Your task to perform on an android device: turn on sleep mode Image 0: 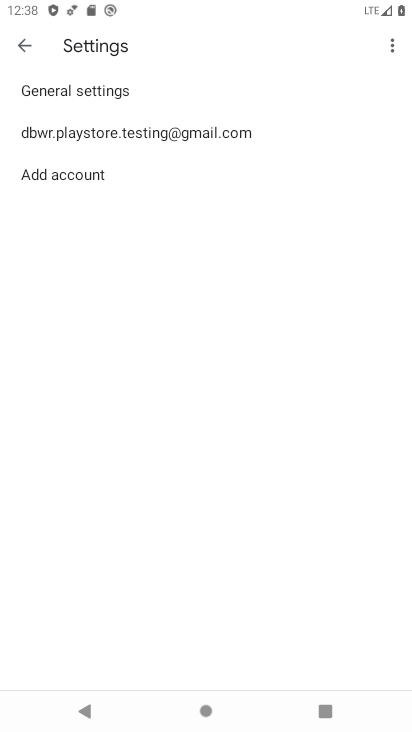
Step 0: press home button
Your task to perform on an android device: turn on sleep mode Image 1: 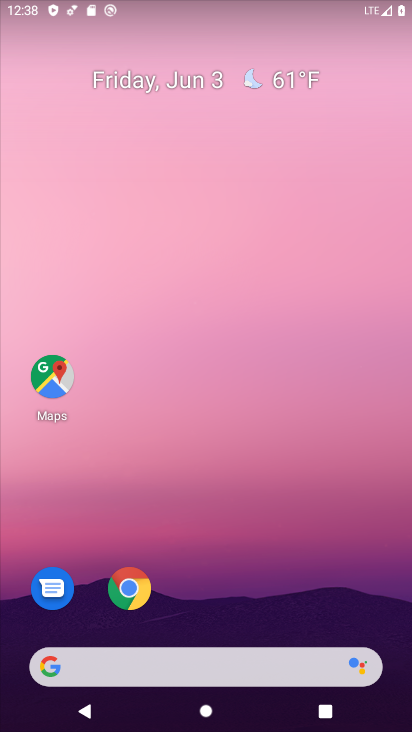
Step 1: drag from (256, 463) to (286, 72)
Your task to perform on an android device: turn on sleep mode Image 2: 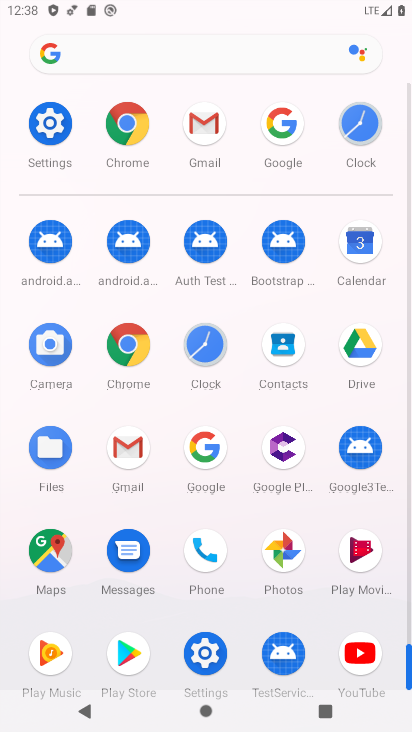
Step 2: click (180, 634)
Your task to perform on an android device: turn on sleep mode Image 3: 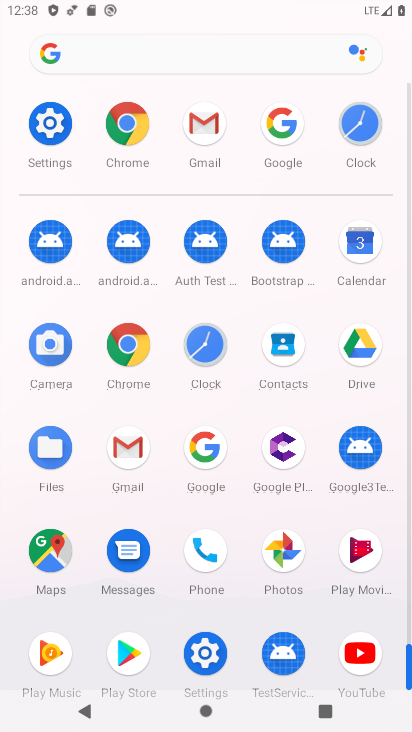
Step 3: click (211, 658)
Your task to perform on an android device: turn on sleep mode Image 4: 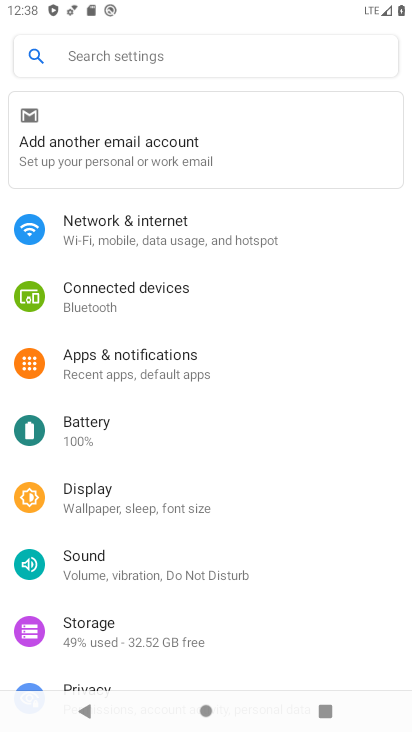
Step 4: click (267, 524)
Your task to perform on an android device: turn on sleep mode Image 5: 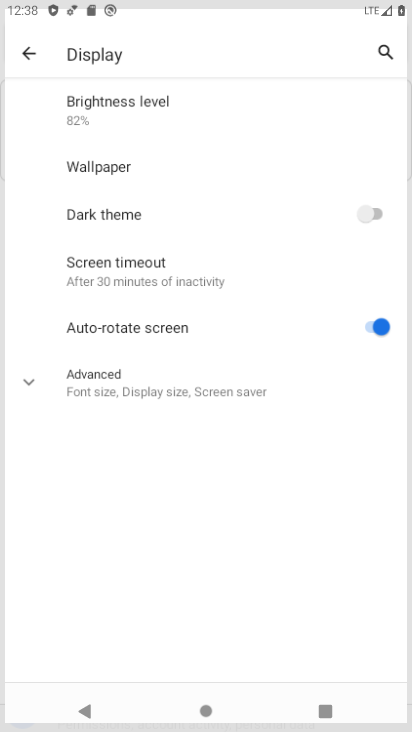
Step 5: task complete